Your task to perform on an android device: turn on javascript in the chrome app Image 0: 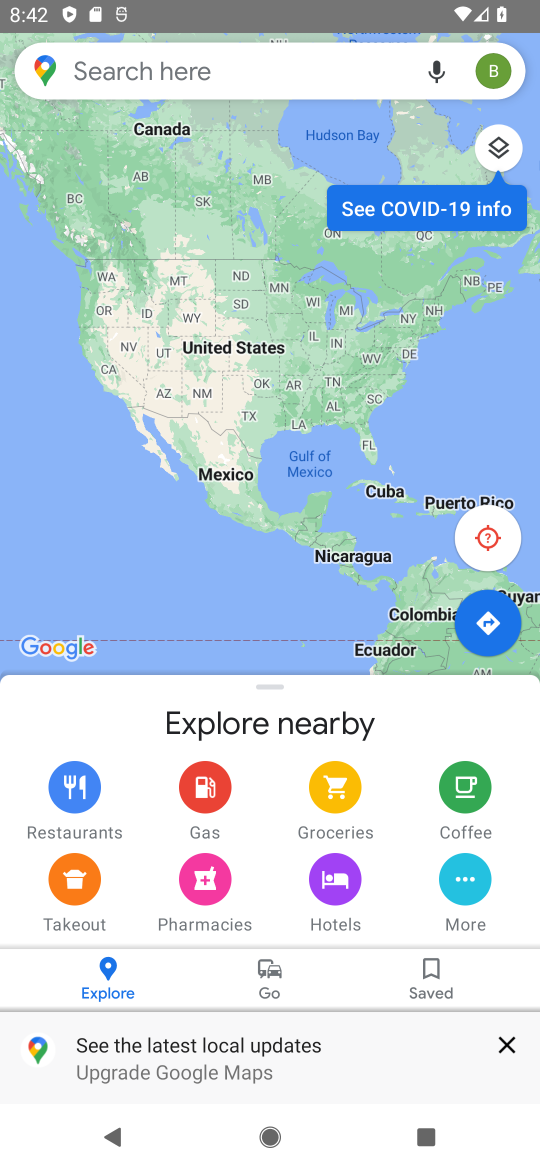
Step 0: press home button
Your task to perform on an android device: turn on javascript in the chrome app Image 1: 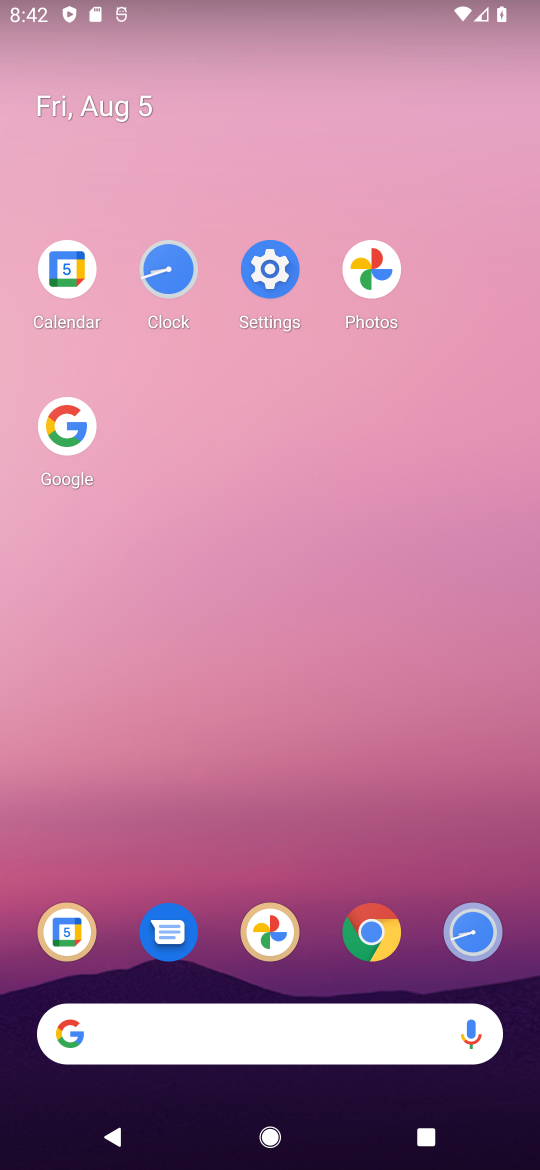
Step 1: click (357, 936)
Your task to perform on an android device: turn on javascript in the chrome app Image 2: 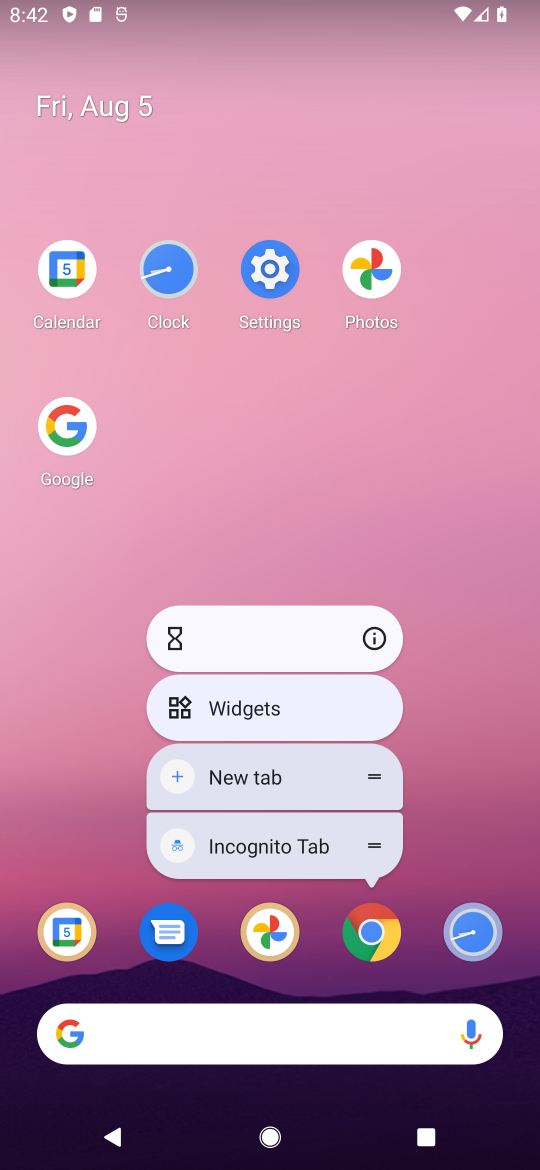
Step 2: click (357, 936)
Your task to perform on an android device: turn on javascript in the chrome app Image 3: 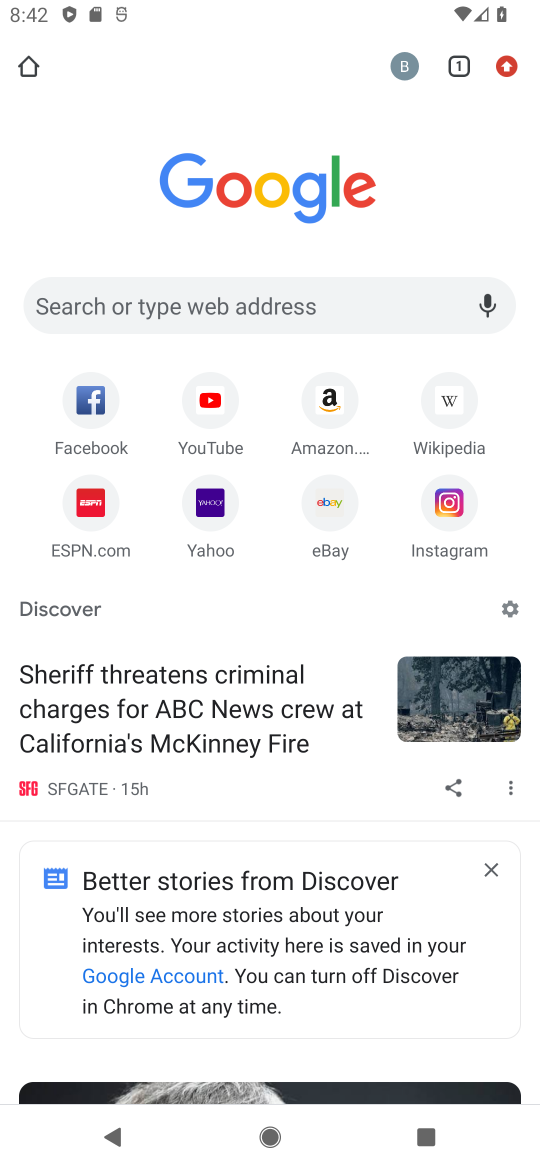
Step 3: click (508, 73)
Your task to perform on an android device: turn on javascript in the chrome app Image 4: 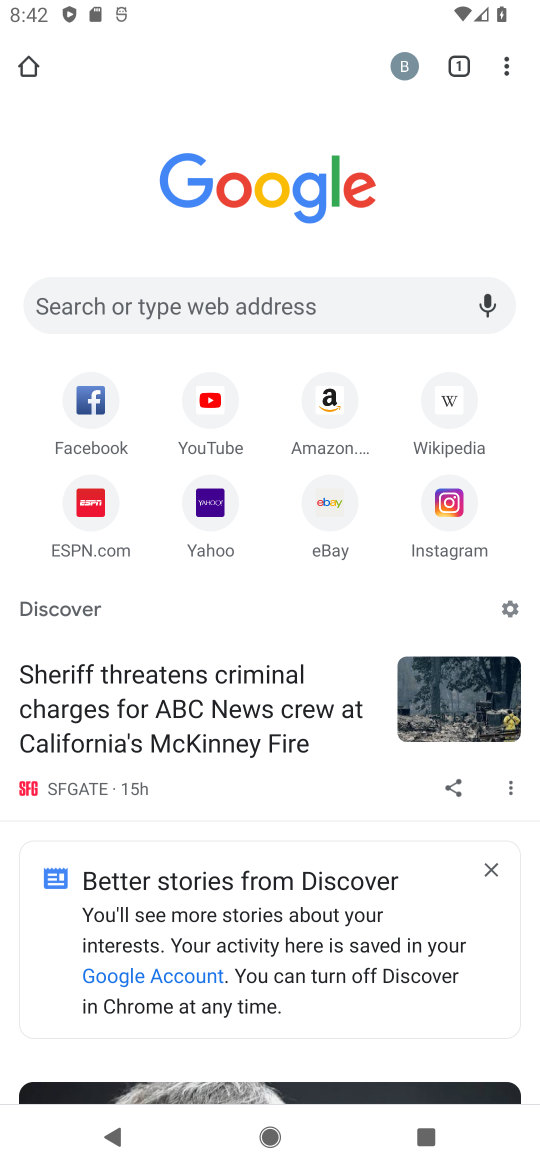
Step 4: click (509, 73)
Your task to perform on an android device: turn on javascript in the chrome app Image 5: 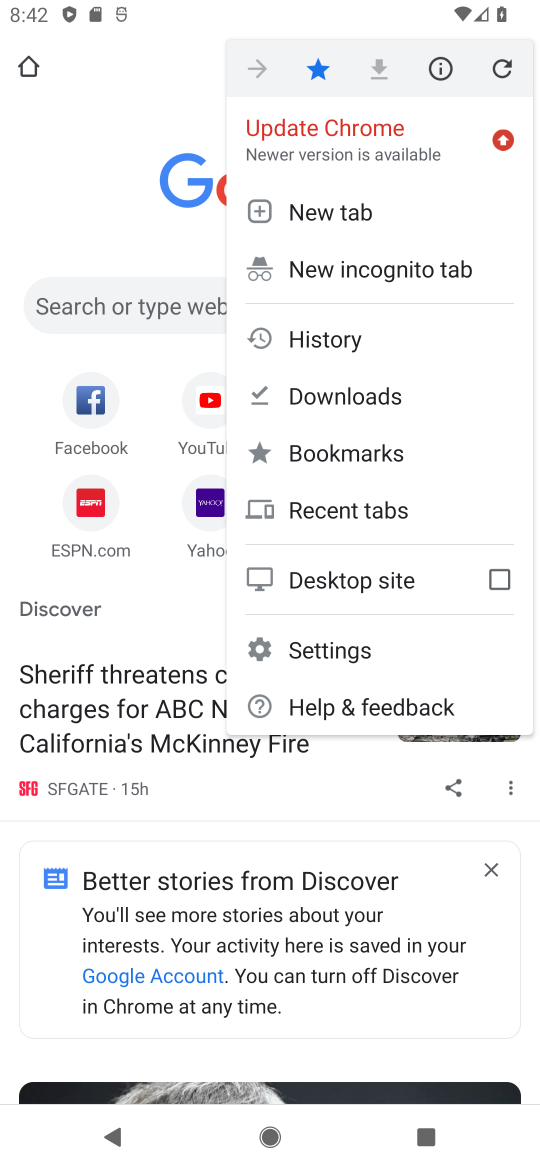
Step 5: click (305, 659)
Your task to perform on an android device: turn on javascript in the chrome app Image 6: 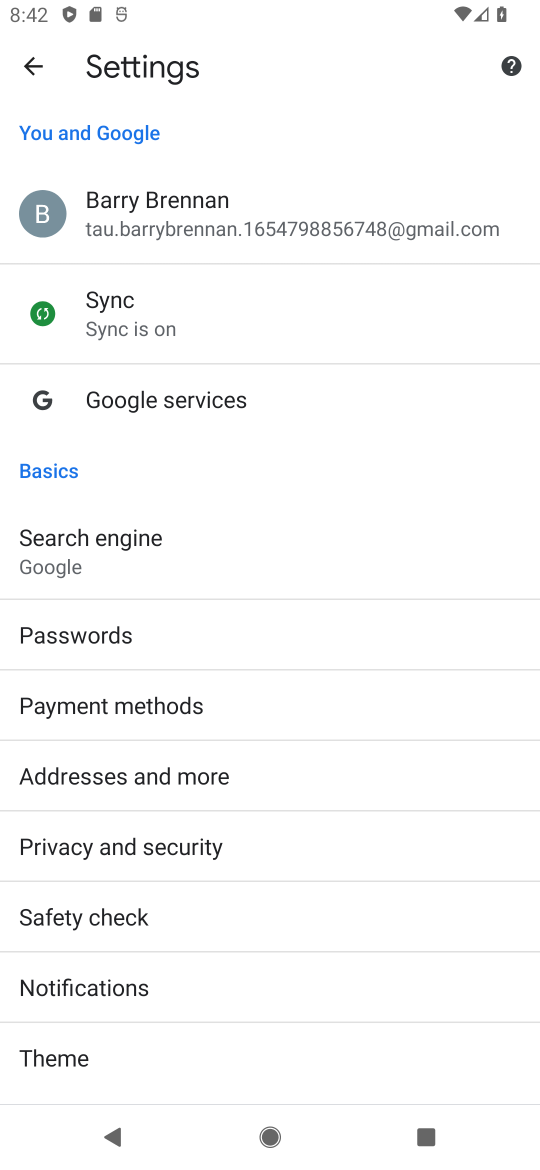
Step 6: drag from (244, 954) to (273, 436)
Your task to perform on an android device: turn on javascript in the chrome app Image 7: 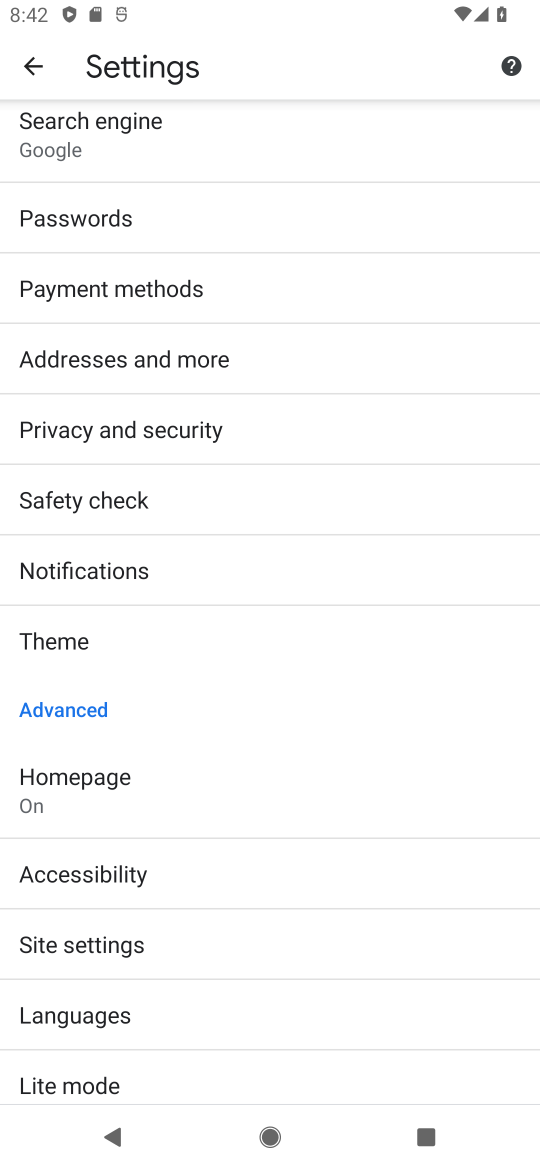
Step 7: click (201, 941)
Your task to perform on an android device: turn on javascript in the chrome app Image 8: 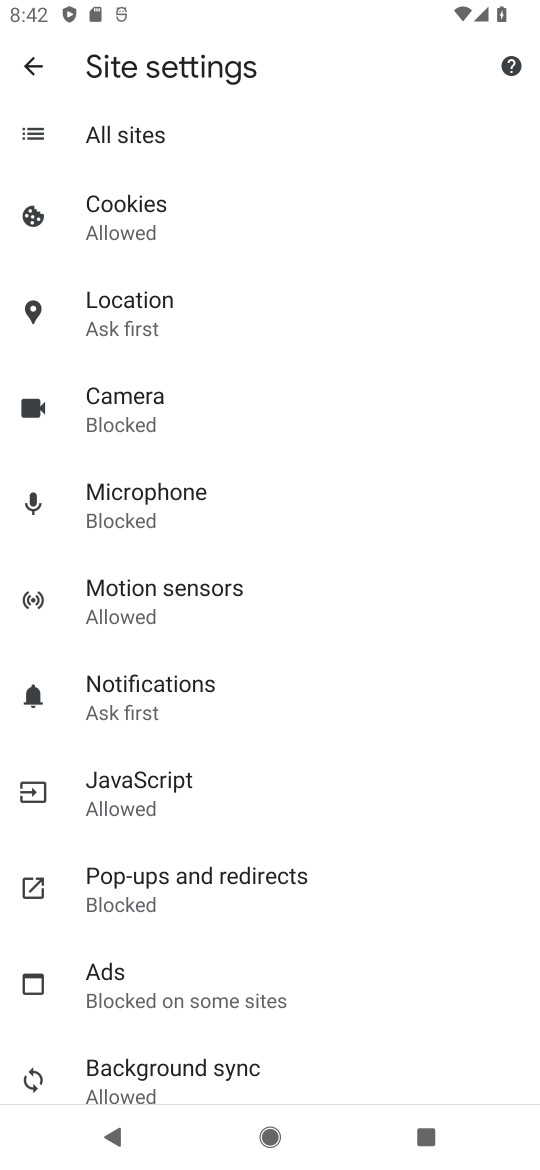
Step 8: click (224, 774)
Your task to perform on an android device: turn on javascript in the chrome app Image 9: 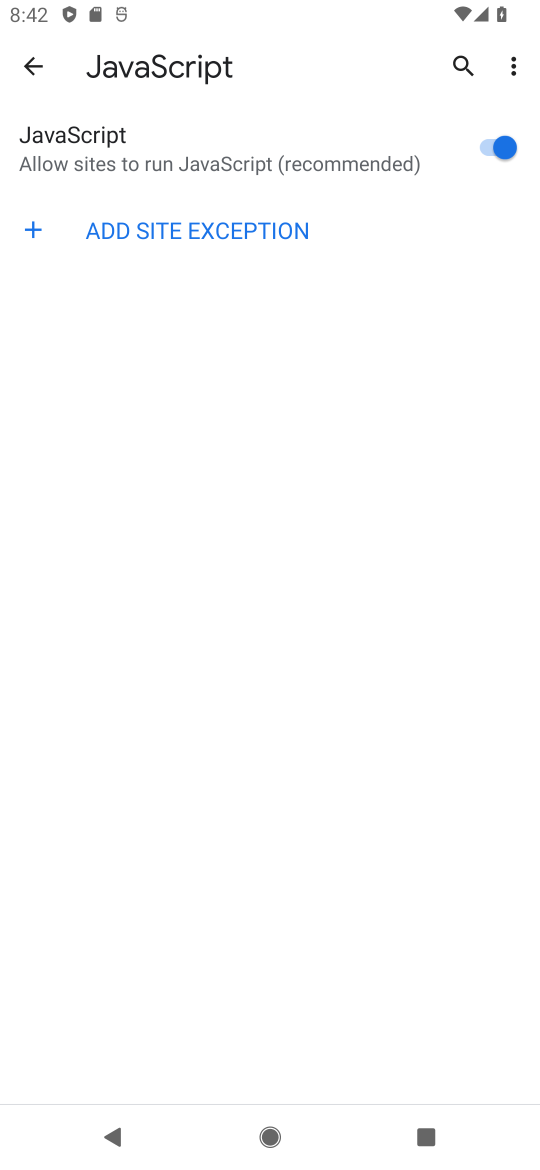
Step 9: task complete